Your task to perform on an android device: Go to CNN.com Image 0: 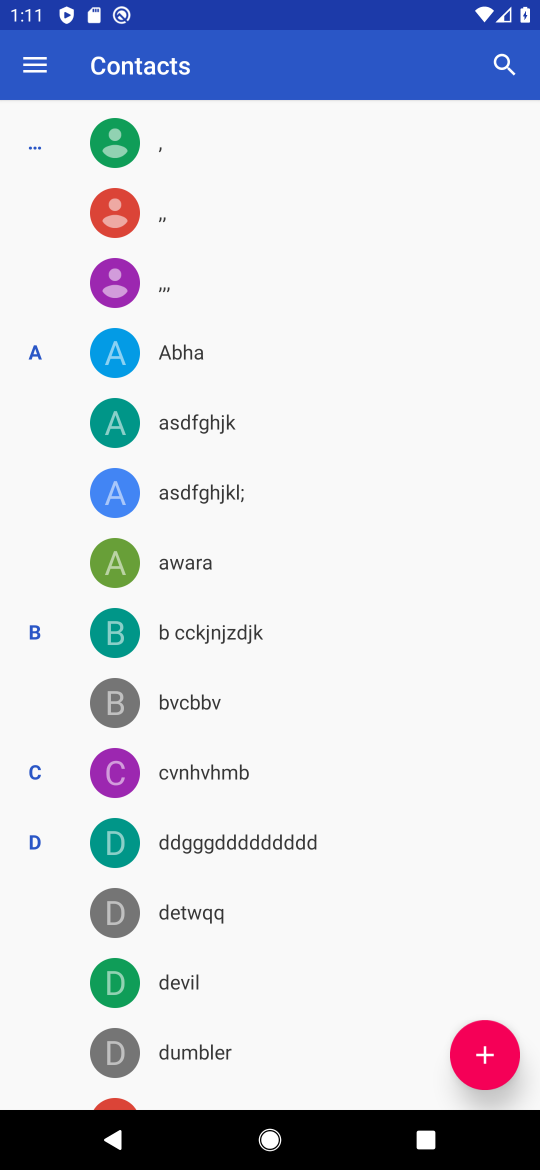
Step 0: press home button
Your task to perform on an android device: Go to CNN.com Image 1: 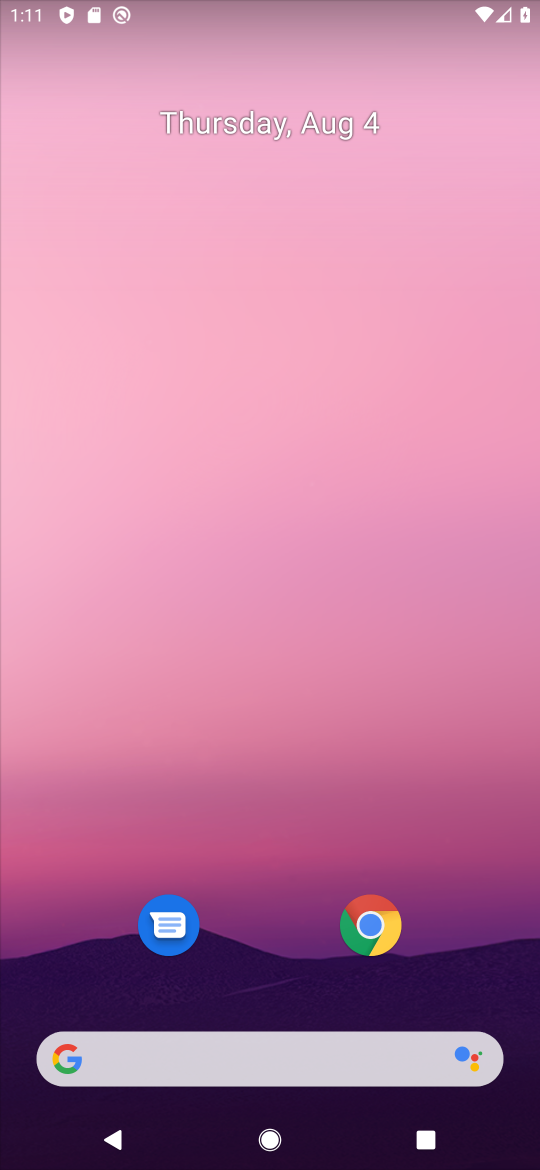
Step 1: click (381, 944)
Your task to perform on an android device: Go to CNN.com Image 2: 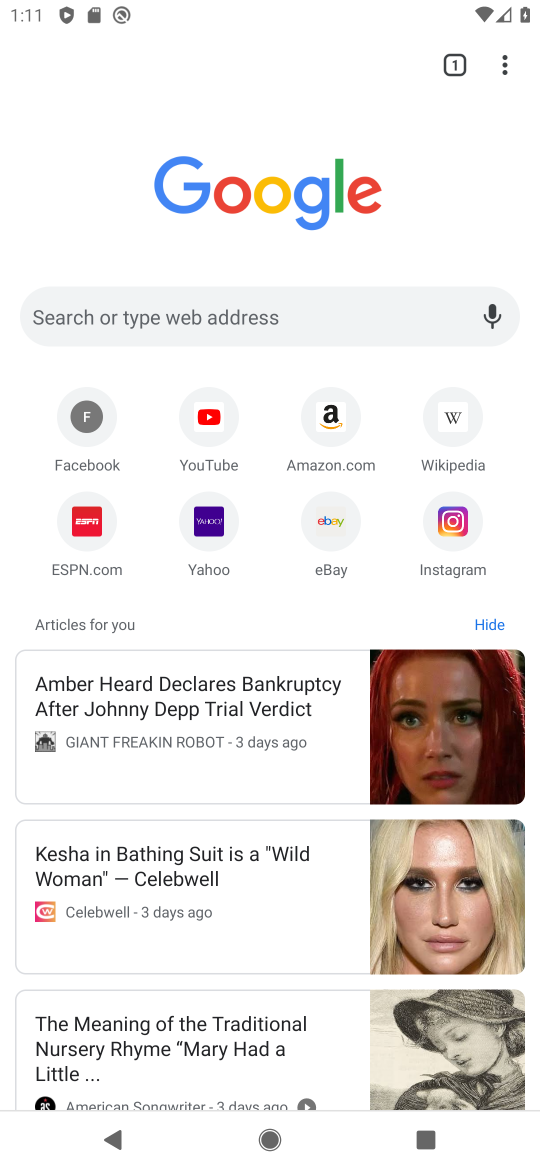
Step 2: click (217, 305)
Your task to perform on an android device: Go to CNN.com Image 3: 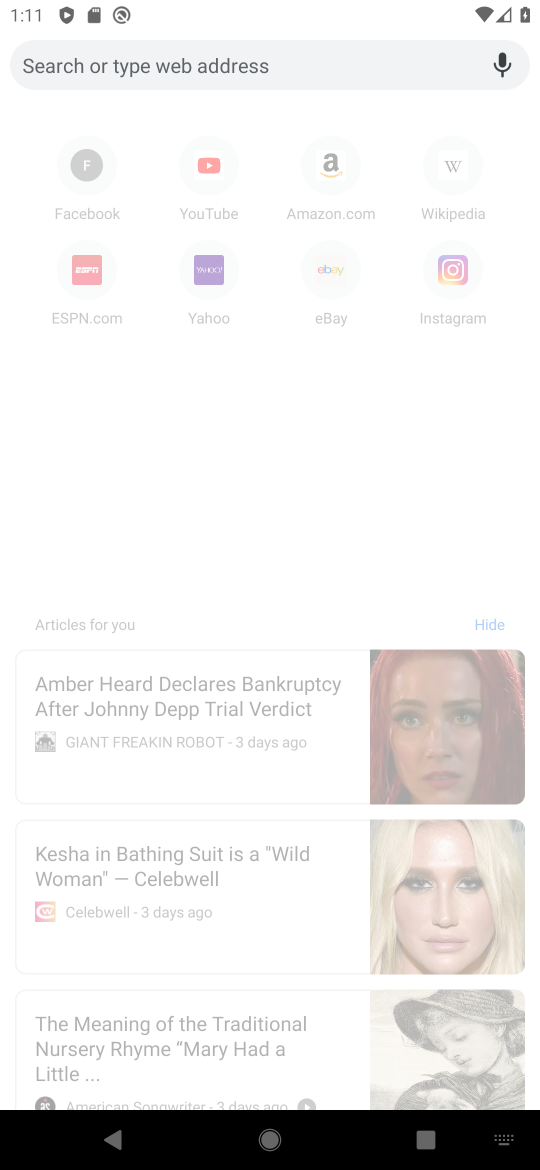
Step 3: type "cnn.com"
Your task to perform on an android device: Go to CNN.com Image 4: 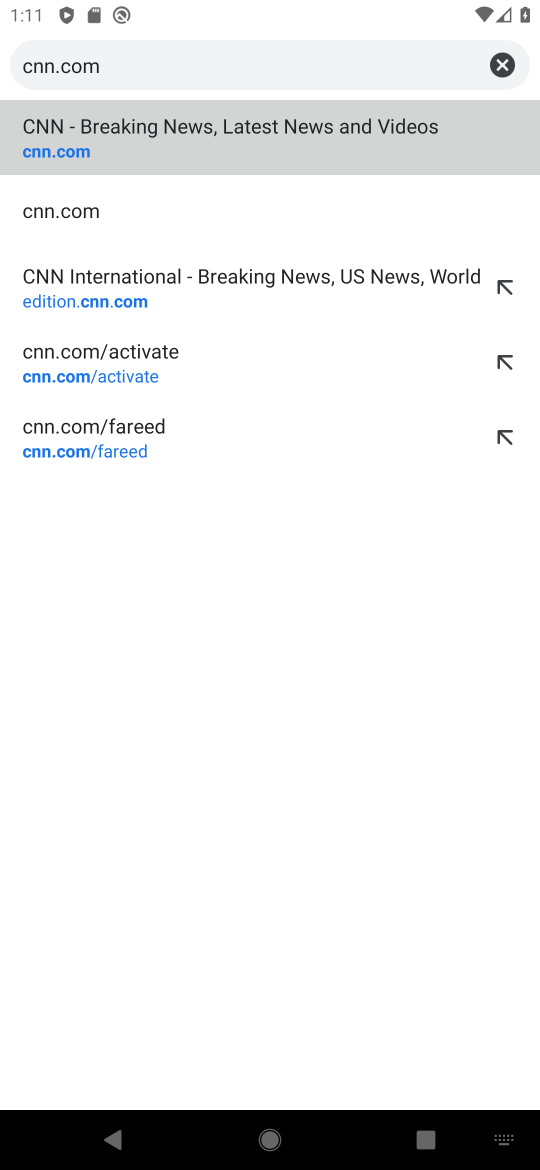
Step 4: click (232, 122)
Your task to perform on an android device: Go to CNN.com Image 5: 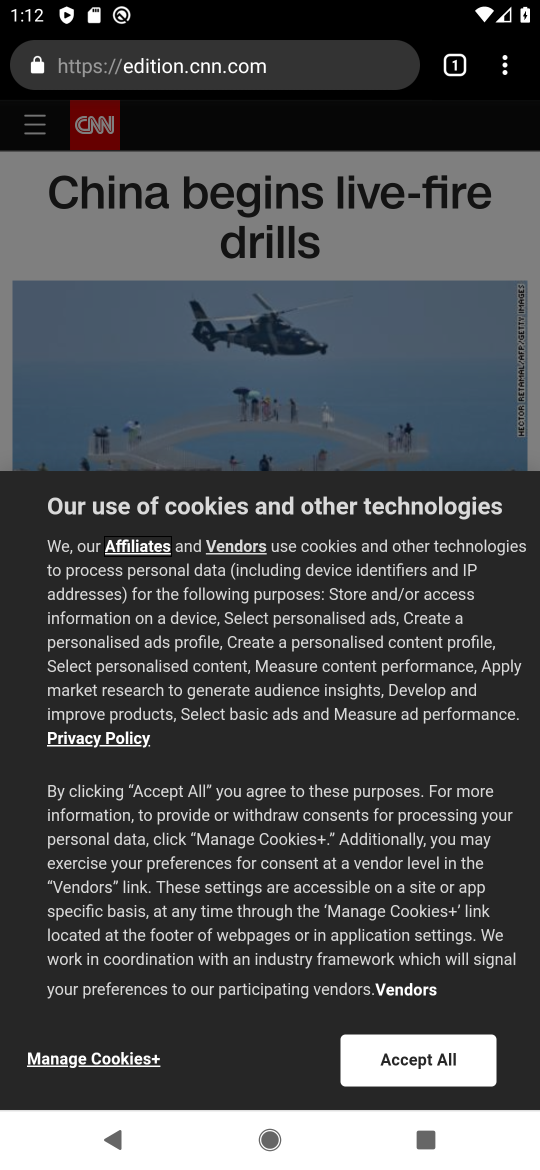
Step 5: click (460, 1064)
Your task to perform on an android device: Go to CNN.com Image 6: 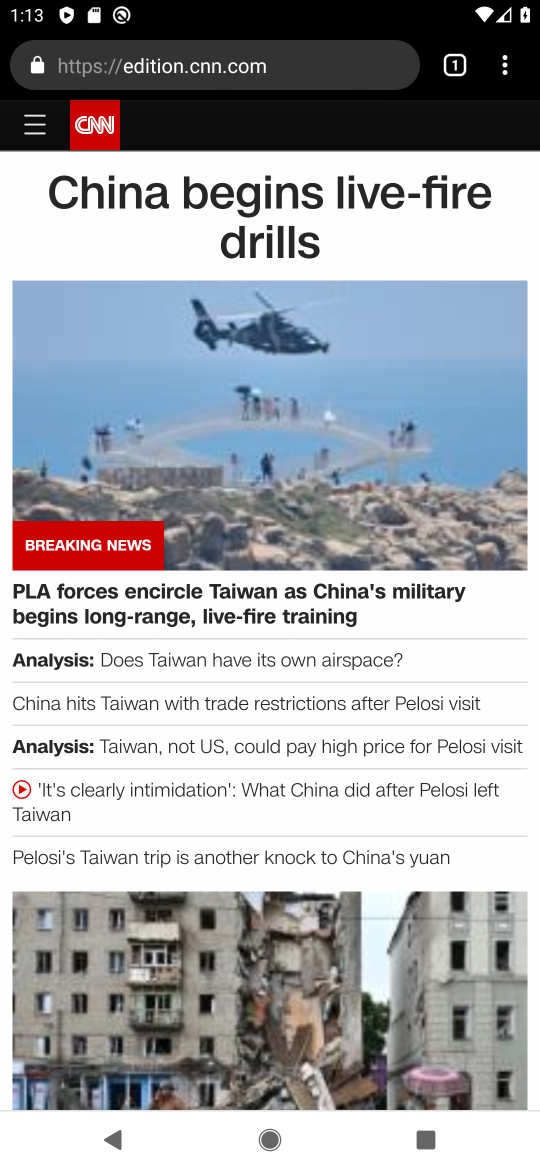
Step 6: task complete